Your task to perform on an android device: Search for the ikea sjalv lamp Image 0: 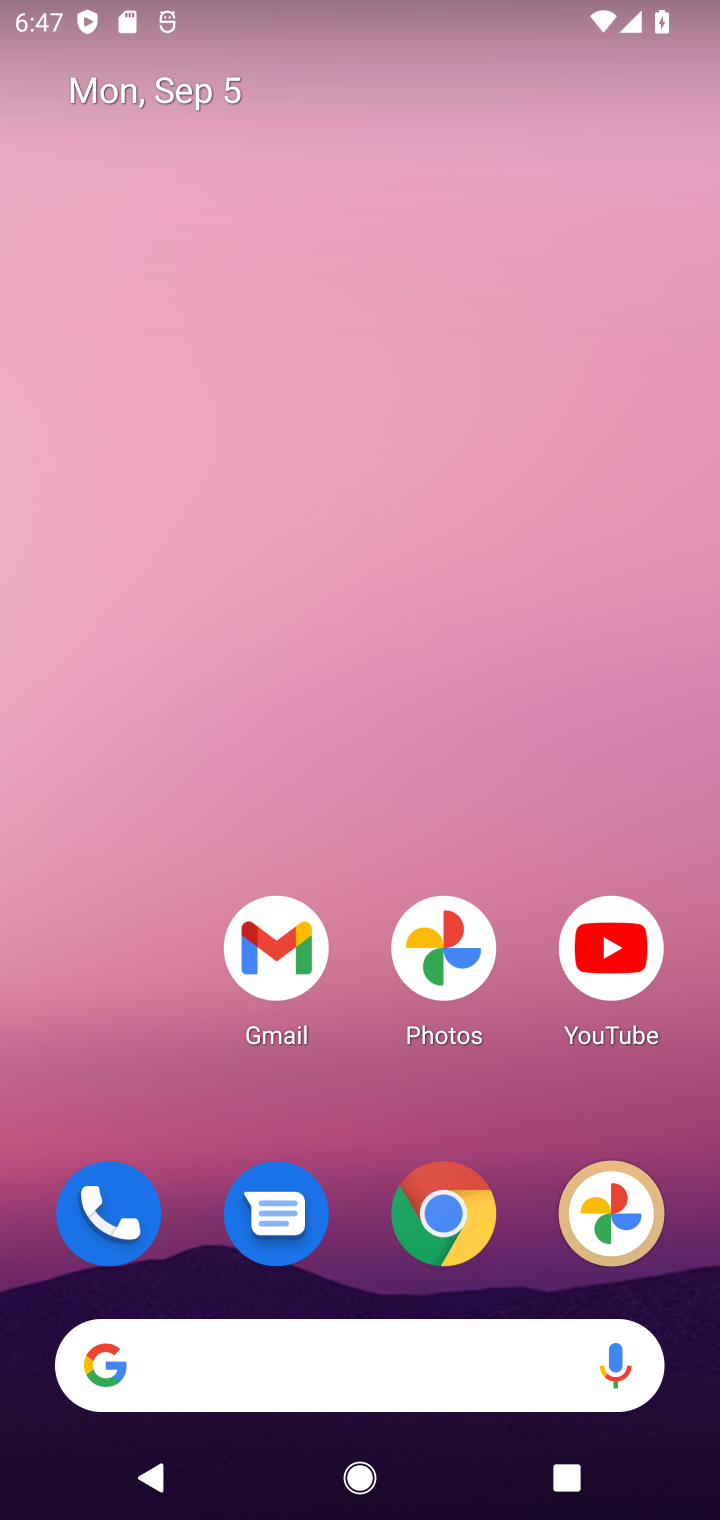
Step 0: click (455, 1223)
Your task to perform on an android device: Search for the ikea sjalv lamp Image 1: 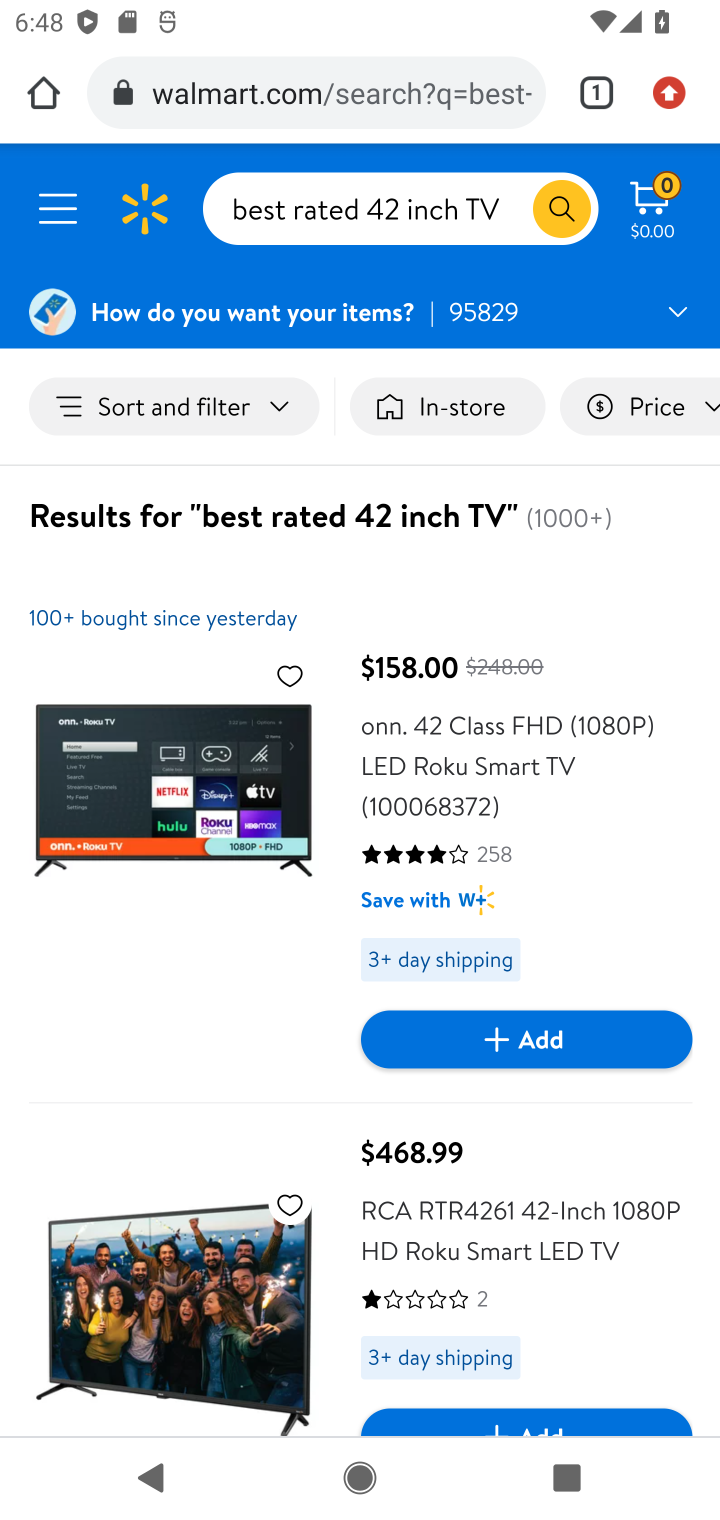
Step 1: press home button
Your task to perform on an android device: Search for the ikea sjalv lamp Image 2: 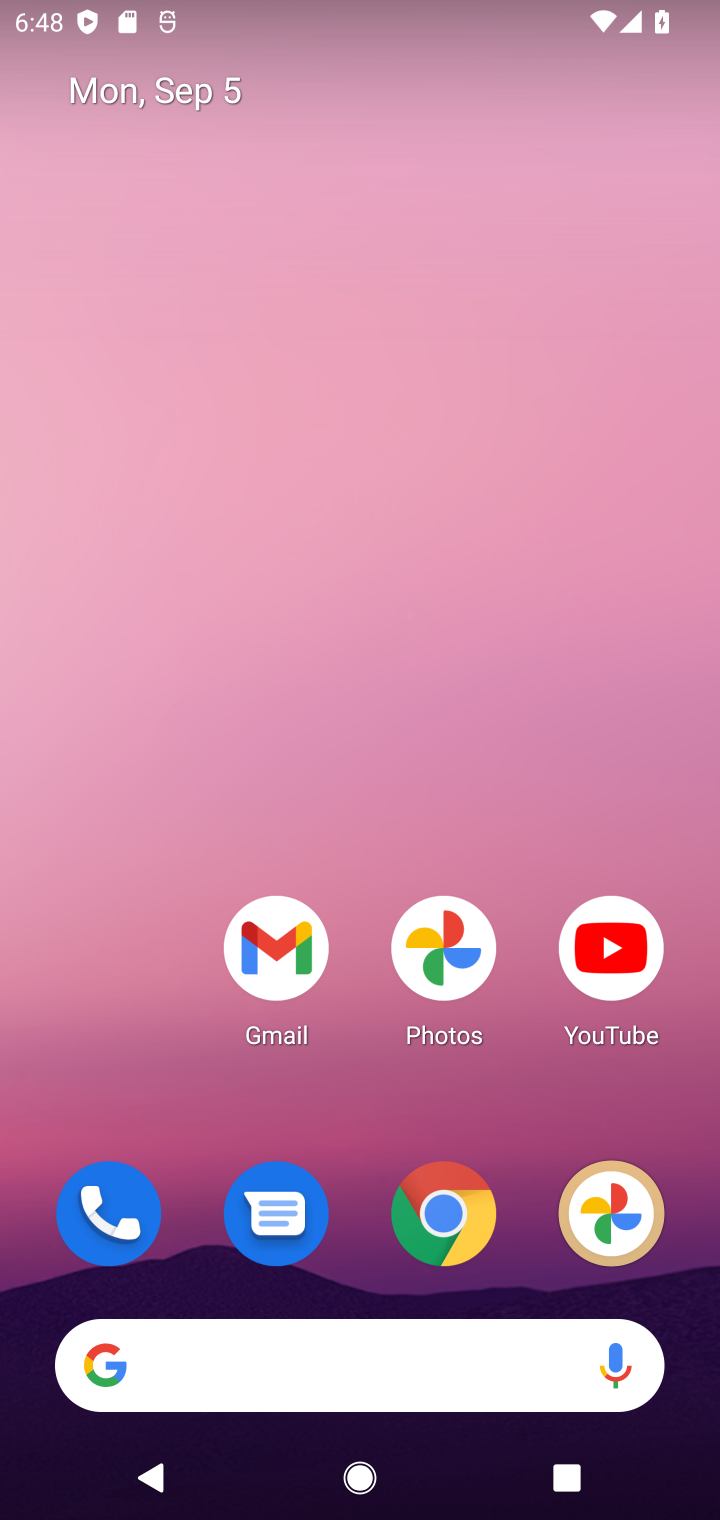
Step 2: click (436, 1222)
Your task to perform on an android device: Search for the ikea sjalv lamp Image 3: 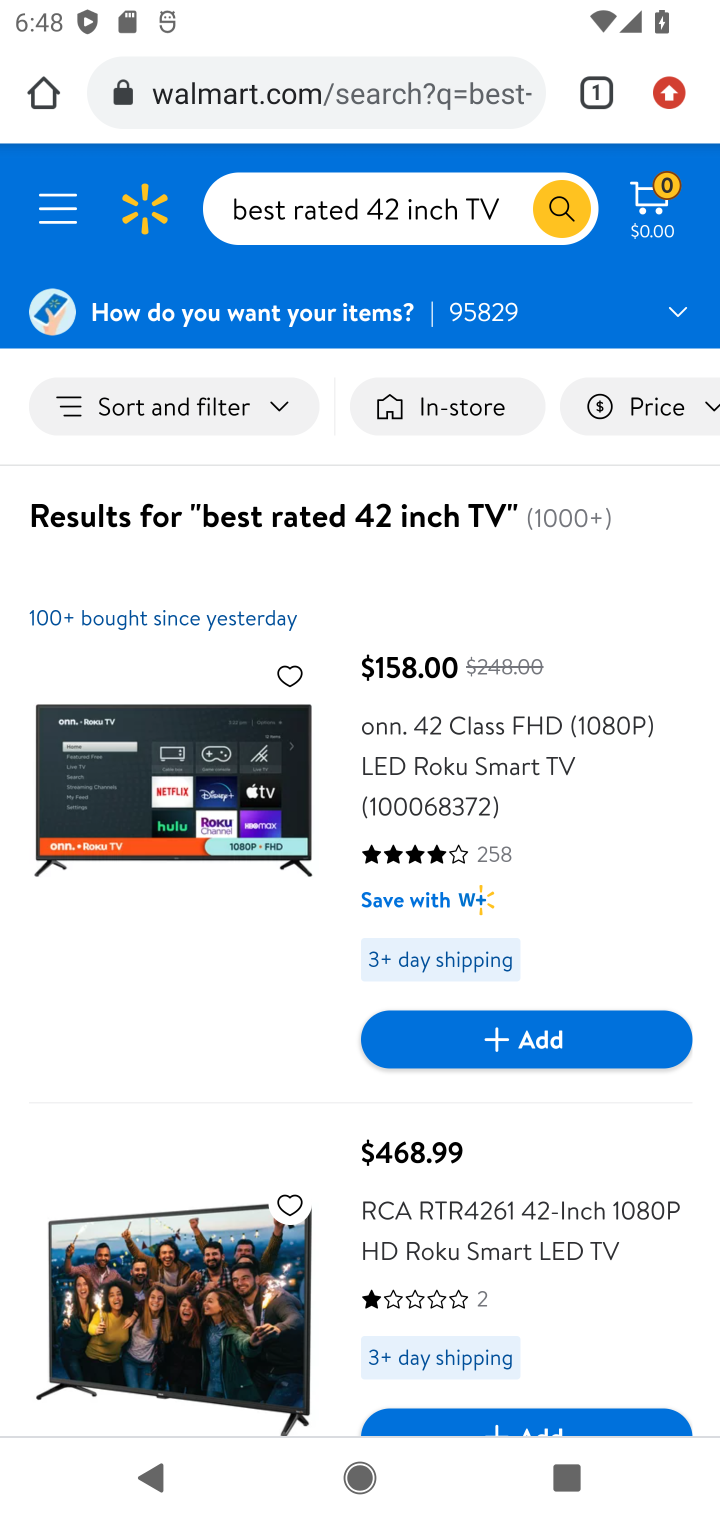
Step 3: click (361, 80)
Your task to perform on an android device: Search for the ikea sjalv lamp Image 4: 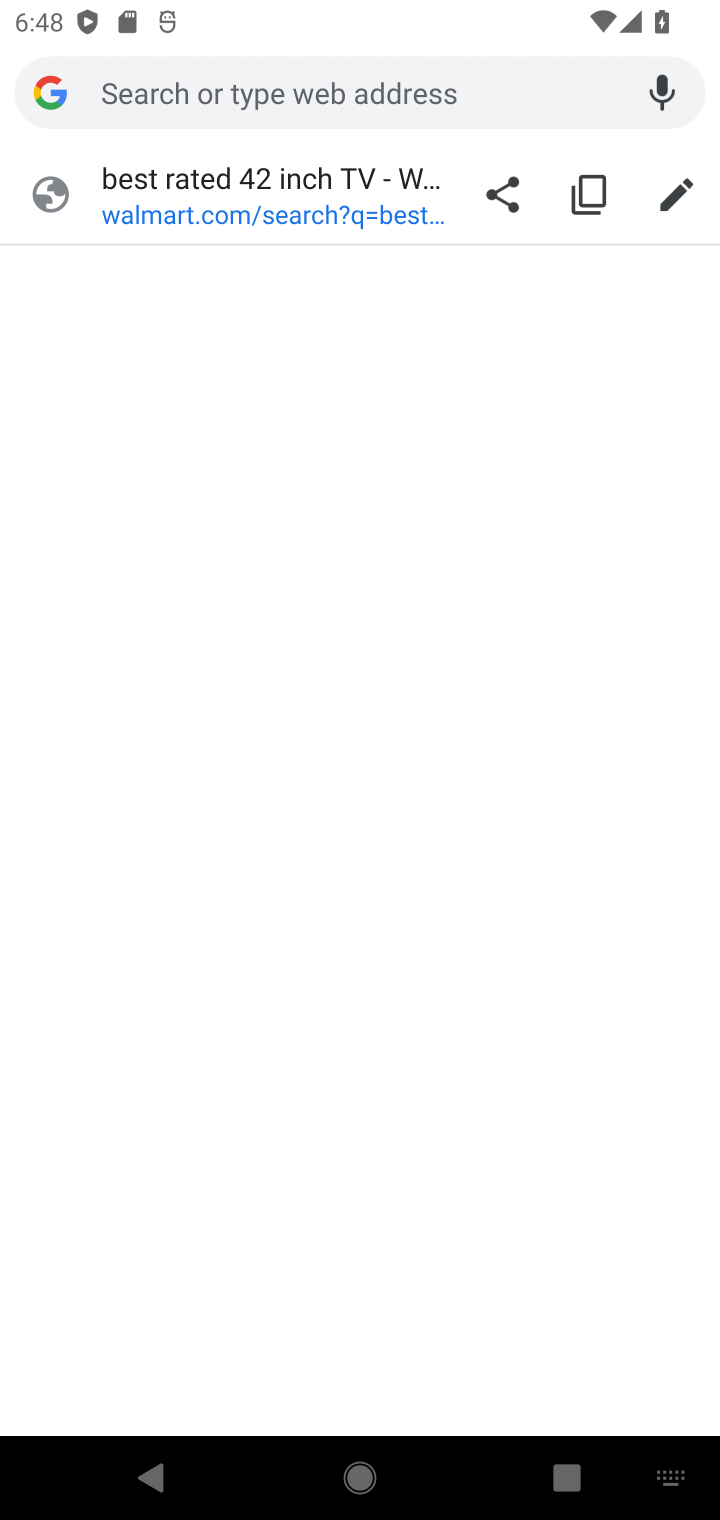
Step 4: type "ikea sjalv lamp"
Your task to perform on an android device: Search for the ikea sjalv lamp Image 5: 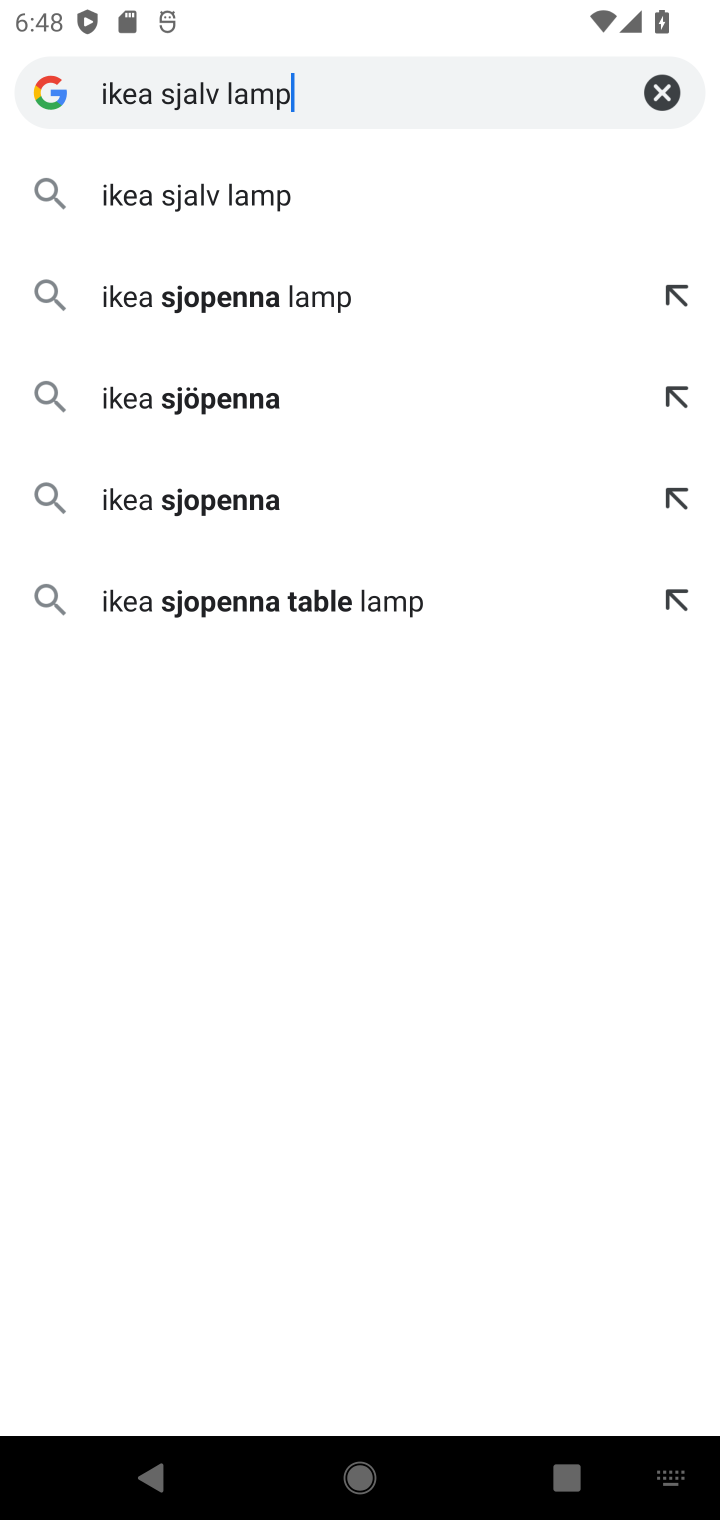
Step 5: click (263, 207)
Your task to perform on an android device: Search for the ikea sjalv lamp Image 6: 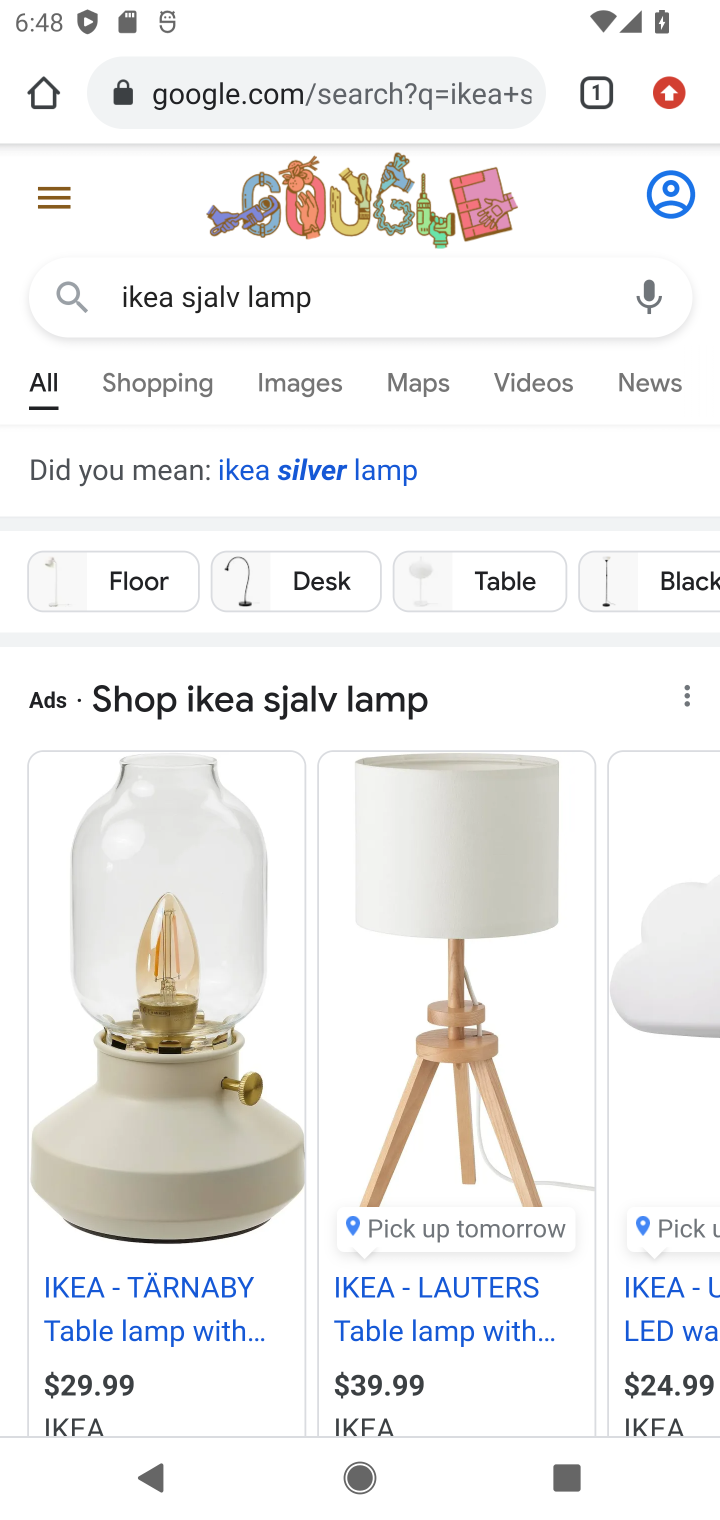
Step 6: click (190, 1099)
Your task to perform on an android device: Search for the ikea sjalv lamp Image 7: 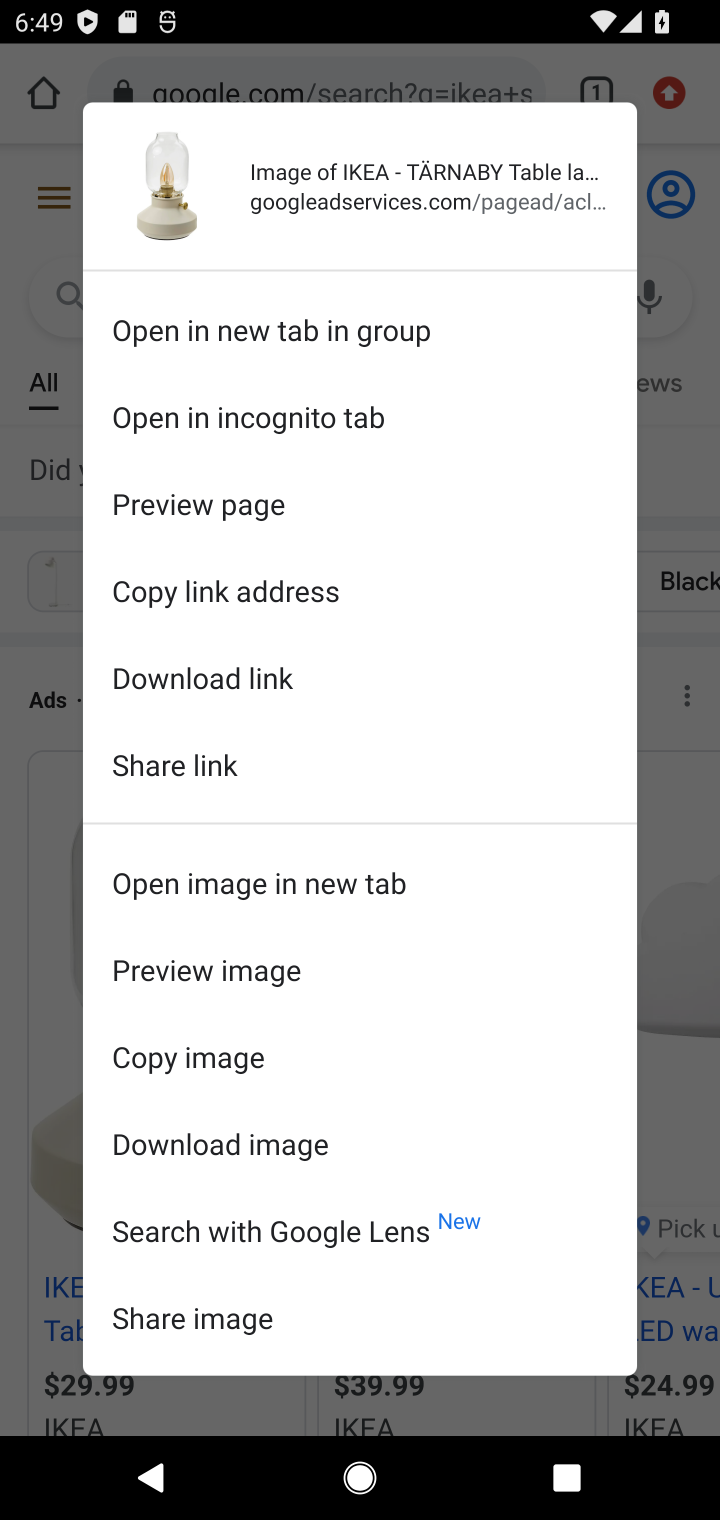
Step 7: click (692, 779)
Your task to perform on an android device: Search for the ikea sjalv lamp Image 8: 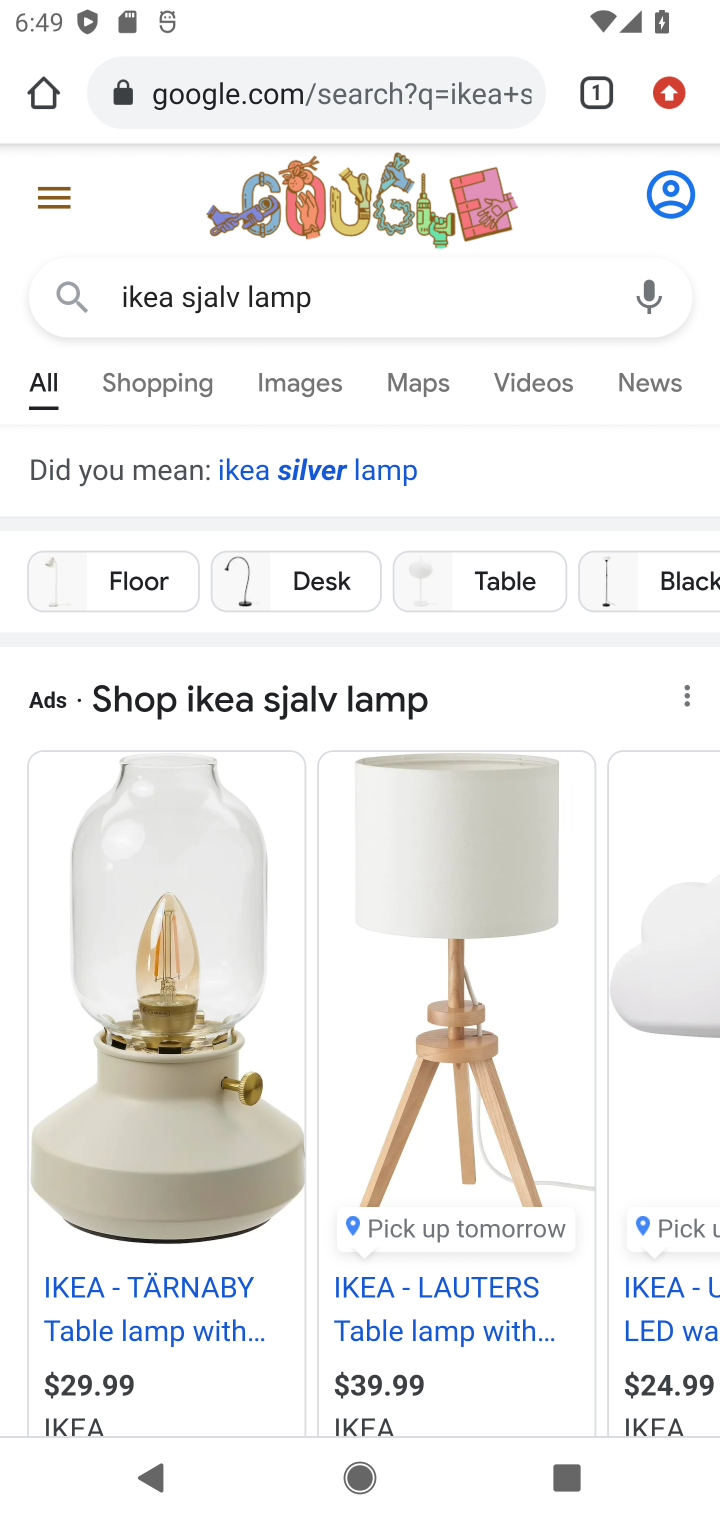
Step 8: click (147, 1290)
Your task to perform on an android device: Search for the ikea sjalv lamp Image 9: 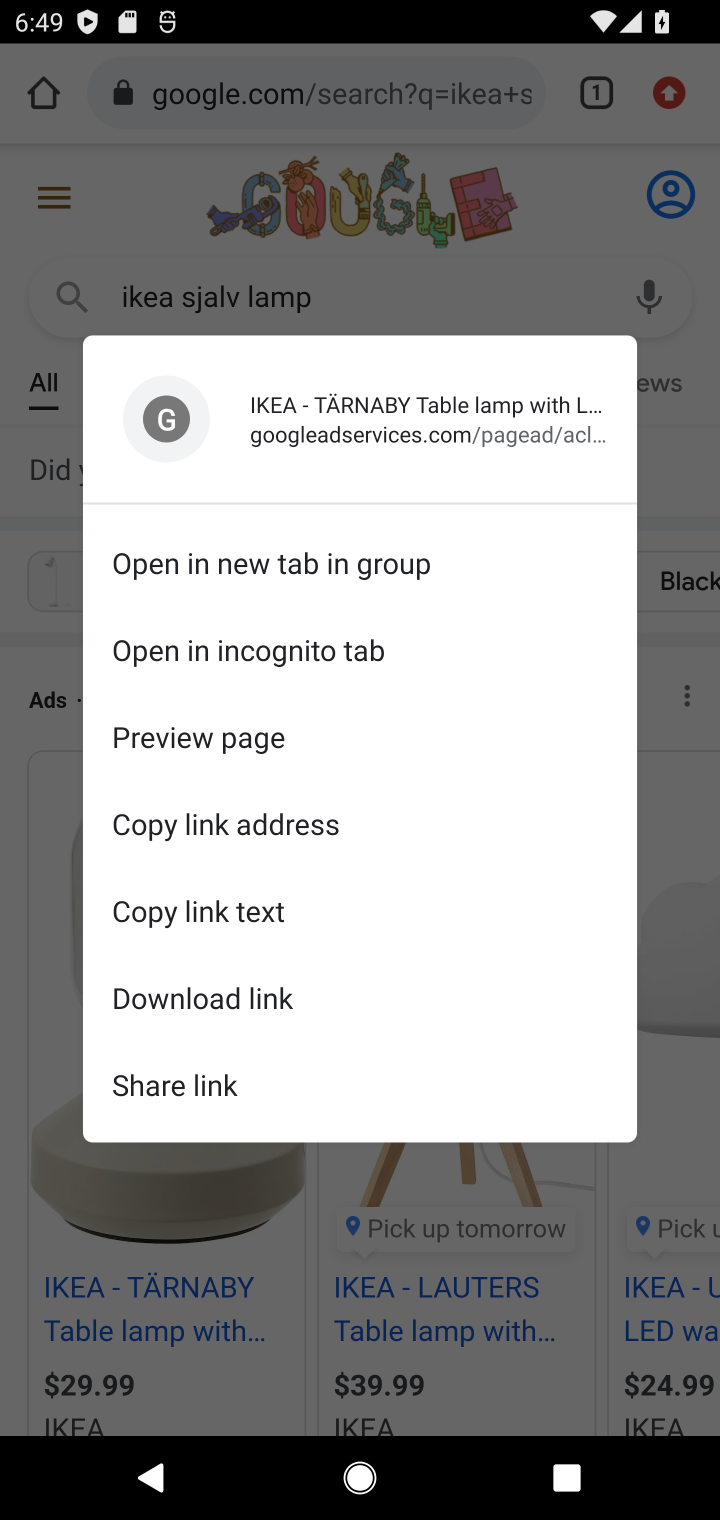
Step 9: click (147, 1290)
Your task to perform on an android device: Search for the ikea sjalv lamp Image 10: 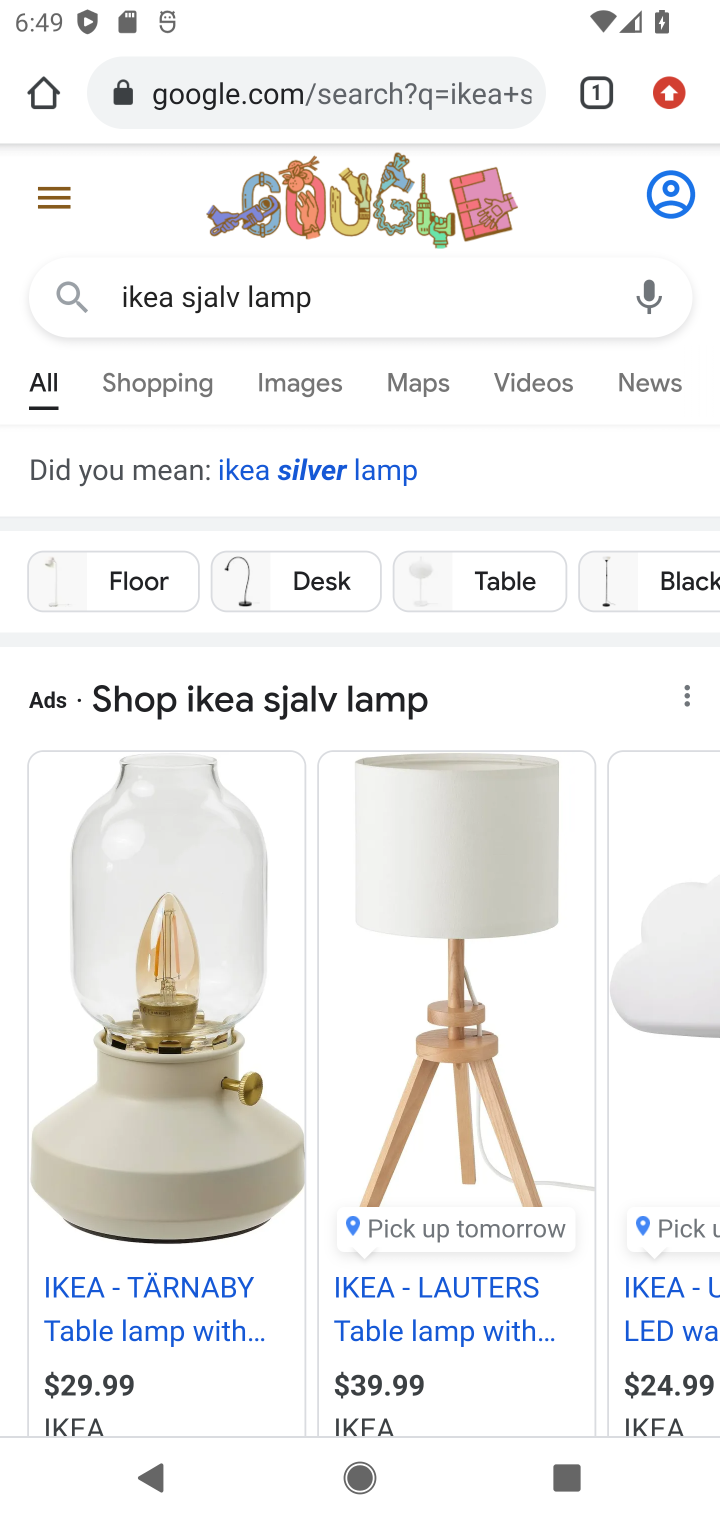
Step 10: click (179, 1293)
Your task to perform on an android device: Search for the ikea sjalv lamp Image 11: 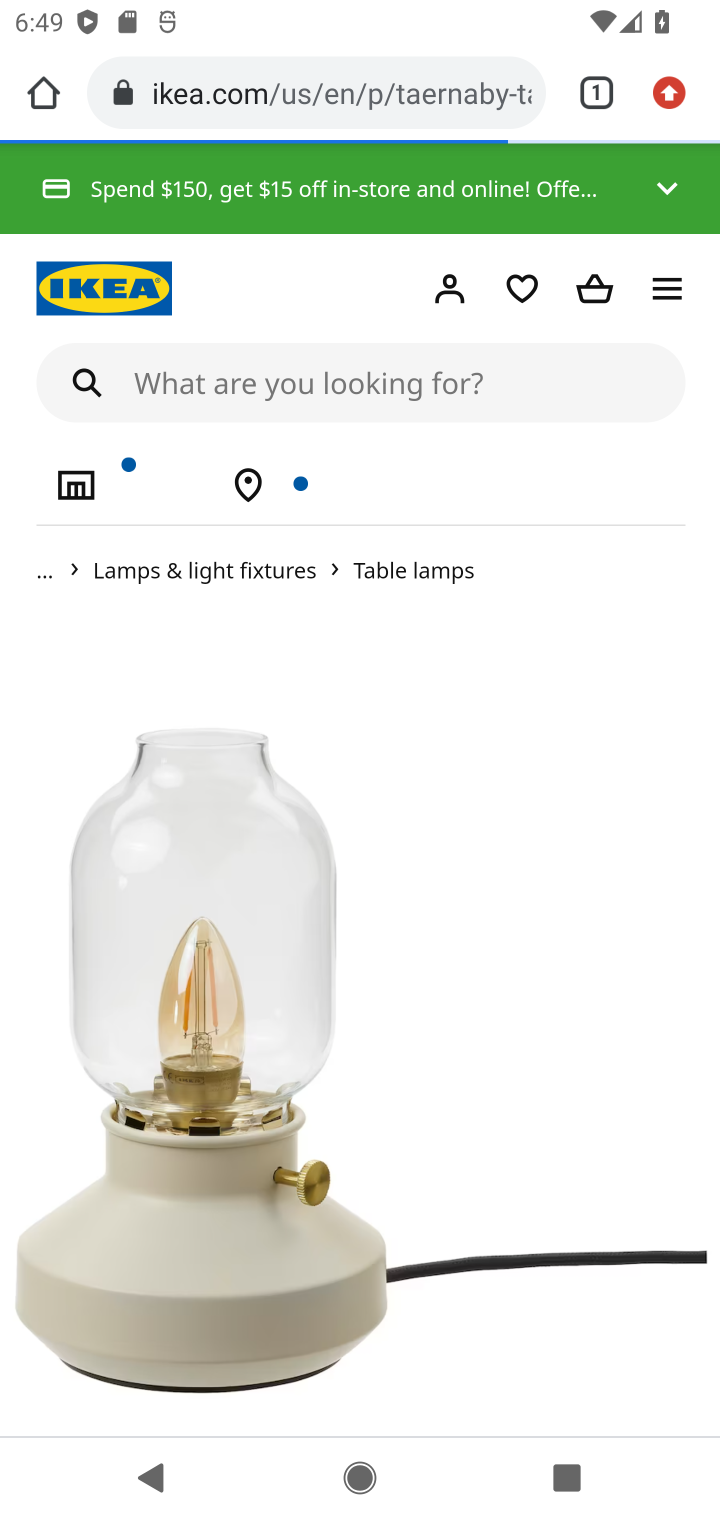
Step 11: task complete